Your task to perform on an android device: Open sound settings Image 0: 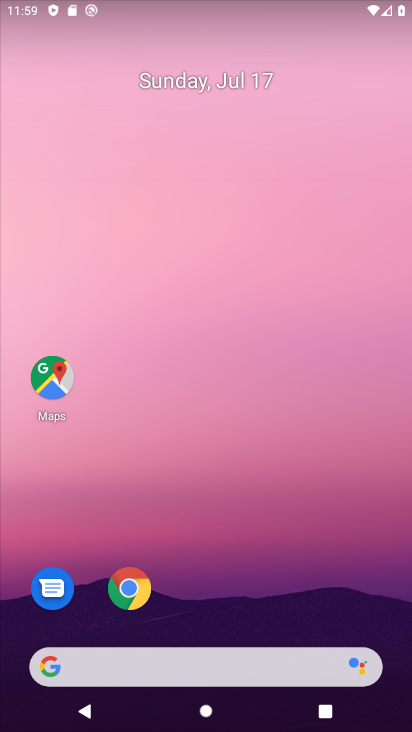
Step 0: drag from (225, 722) to (225, 84)
Your task to perform on an android device: Open sound settings Image 1: 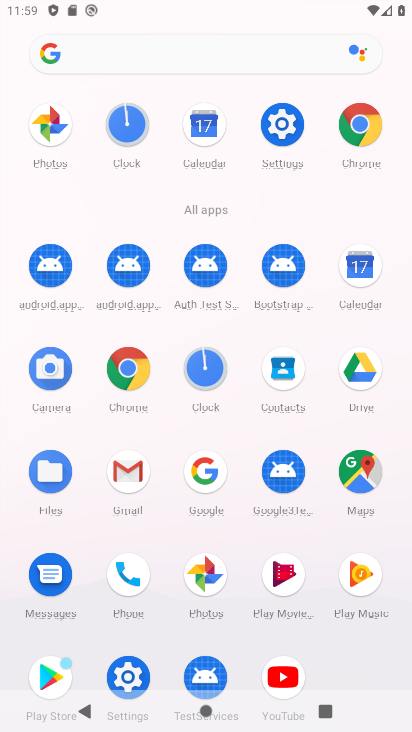
Step 1: click (270, 134)
Your task to perform on an android device: Open sound settings Image 2: 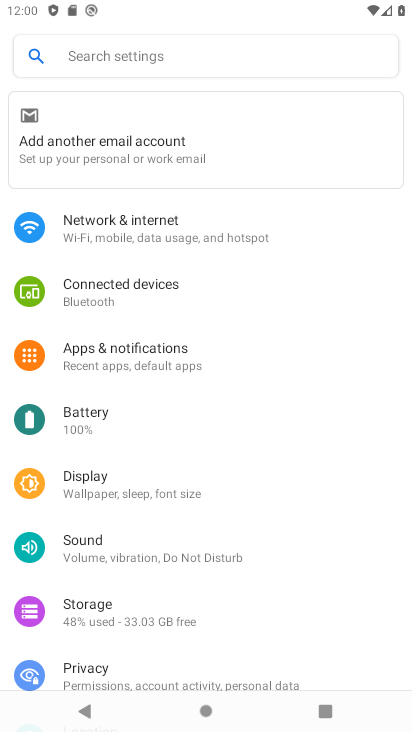
Step 2: click (104, 543)
Your task to perform on an android device: Open sound settings Image 3: 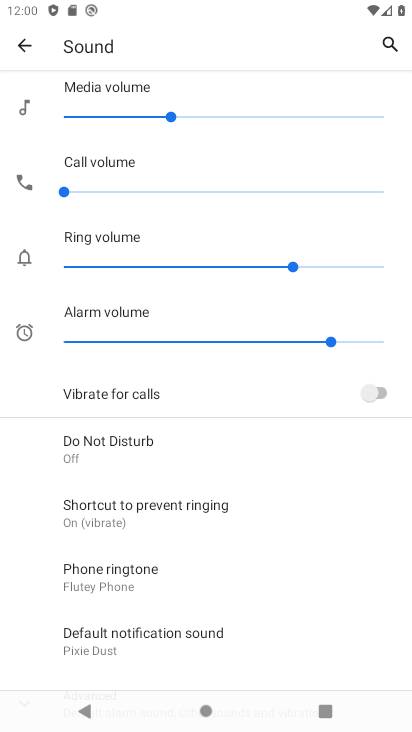
Step 3: task complete